Your task to perform on an android device: allow notifications from all sites in the chrome app Image 0: 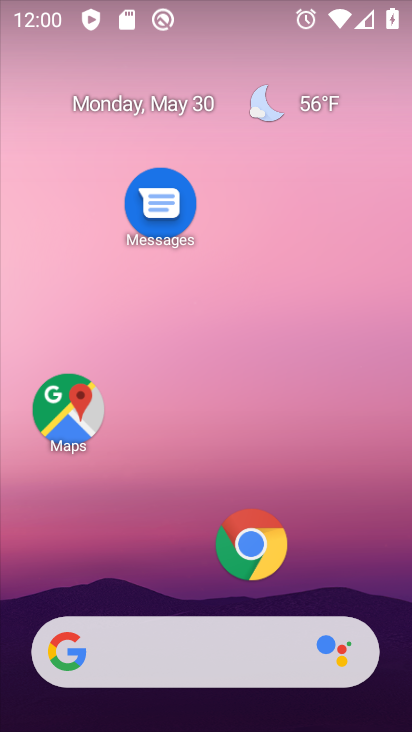
Step 0: click (254, 536)
Your task to perform on an android device: allow notifications from all sites in the chrome app Image 1: 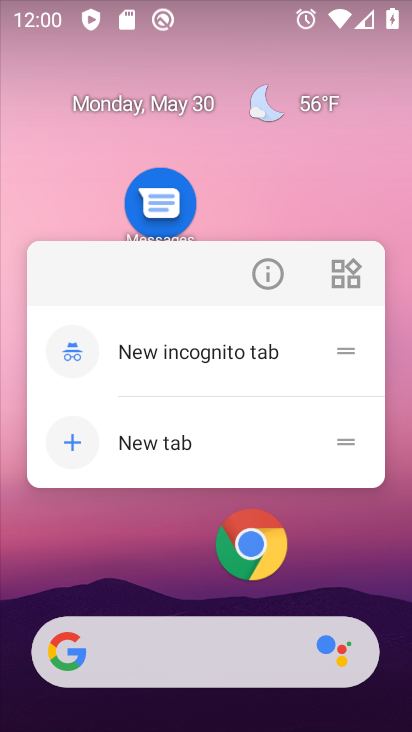
Step 1: click (249, 534)
Your task to perform on an android device: allow notifications from all sites in the chrome app Image 2: 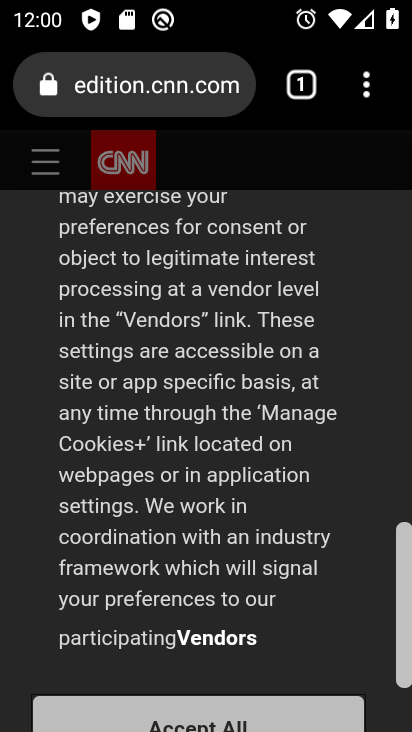
Step 2: click (366, 79)
Your task to perform on an android device: allow notifications from all sites in the chrome app Image 3: 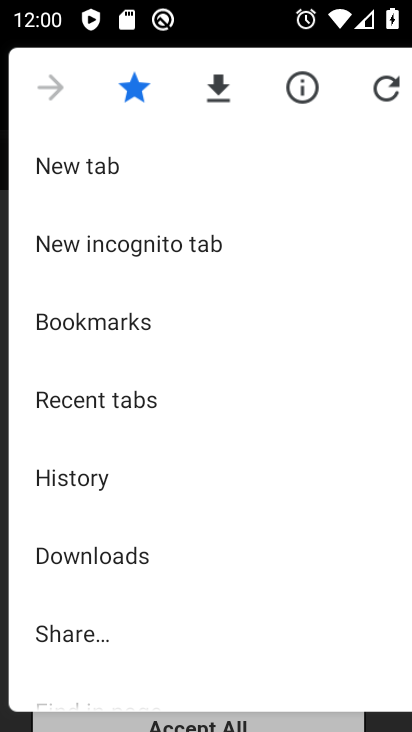
Step 3: drag from (181, 617) to (194, 121)
Your task to perform on an android device: allow notifications from all sites in the chrome app Image 4: 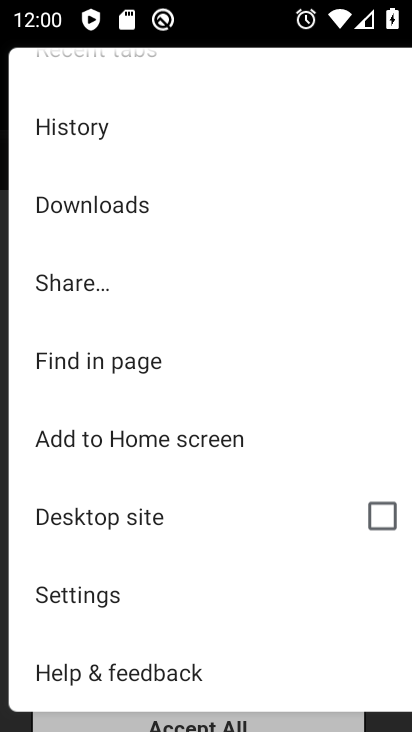
Step 4: click (141, 592)
Your task to perform on an android device: allow notifications from all sites in the chrome app Image 5: 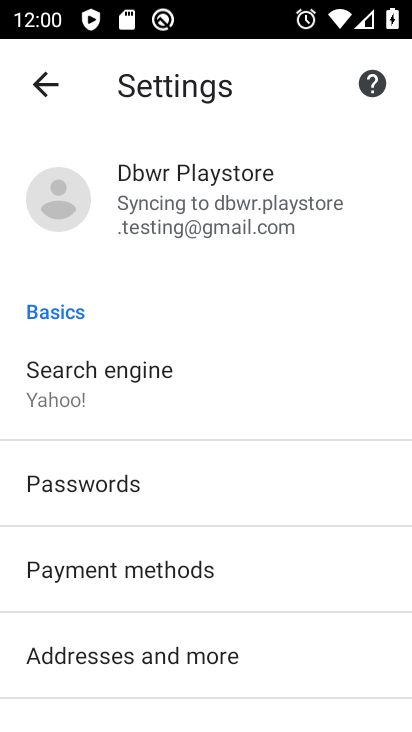
Step 5: drag from (248, 648) to (281, 206)
Your task to perform on an android device: allow notifications from all sites in the chrome app Image 6: 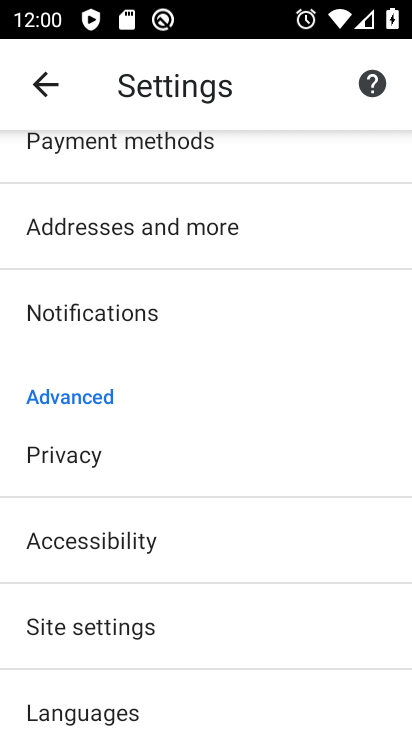
Step 6: click (188, 629)
Your task to perform on an android device: allow notifications from all sites in the chrome app Image 7: 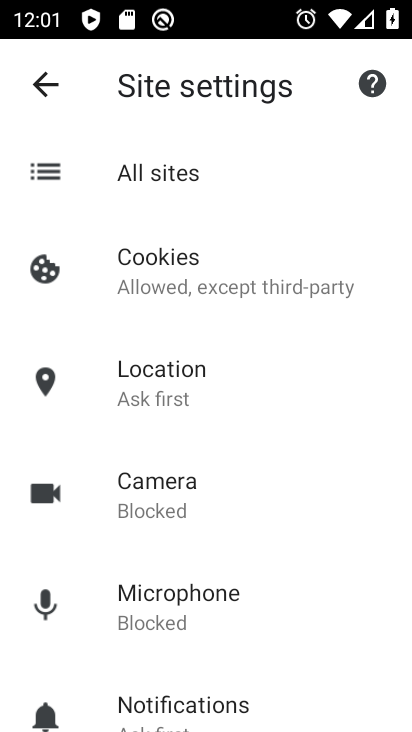
Step 7: click (214, 703)
Your task to perform on an android device: allow notifications from all sites in the chrome app Image 8: 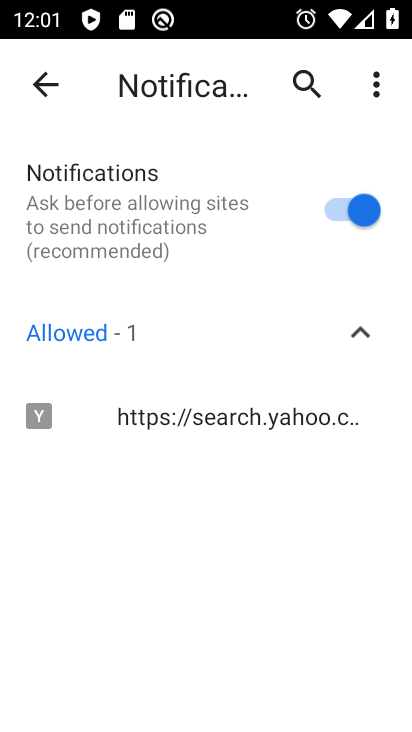
Step 8: click (344, 201)
Your task to perform on an android device: allow notifications from all sites in the chrome app Image 9: 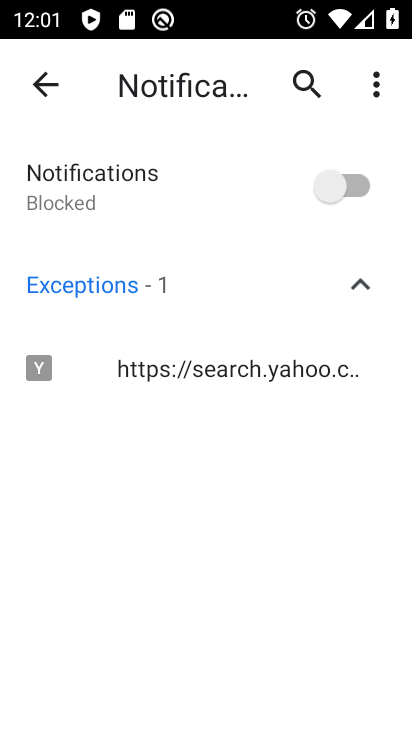
Step 9: click (358, 204)
Your task to perform on an android device: allow notifications from all sites in the chrome app Image 10: 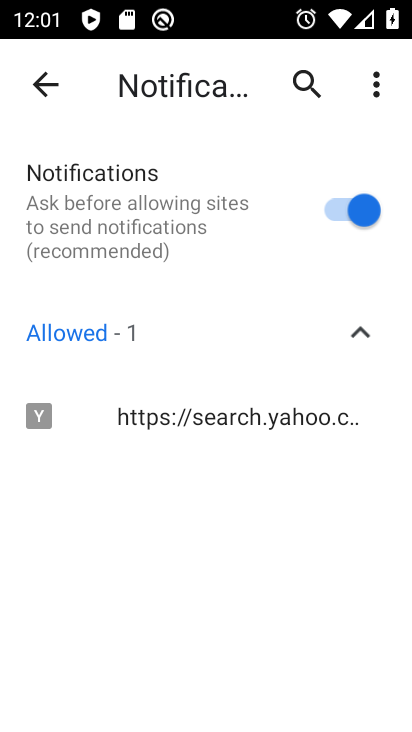
Step 10: task complete